Your task to perform on an android device: Clear the cart on ebay.com. Add "logitech g pro" to the cart on ebay.com, then select checkout. Image 0: 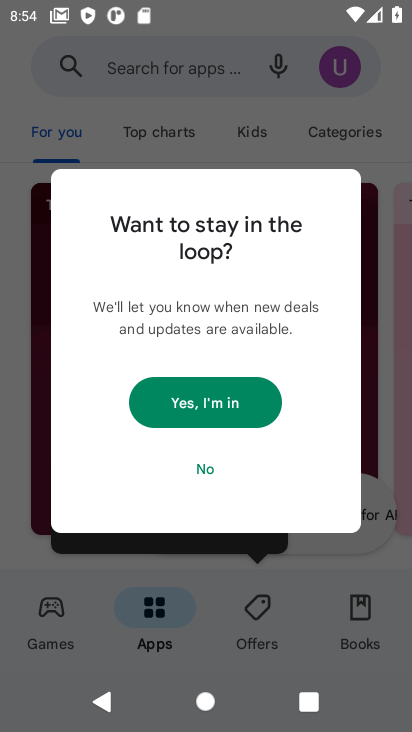
Step 0: press home button
Your task to perform on an android device: Clear the cart on ebay.com. Add "logitech g pro" to the cart on ebay.com, then select checkout. Image 1: 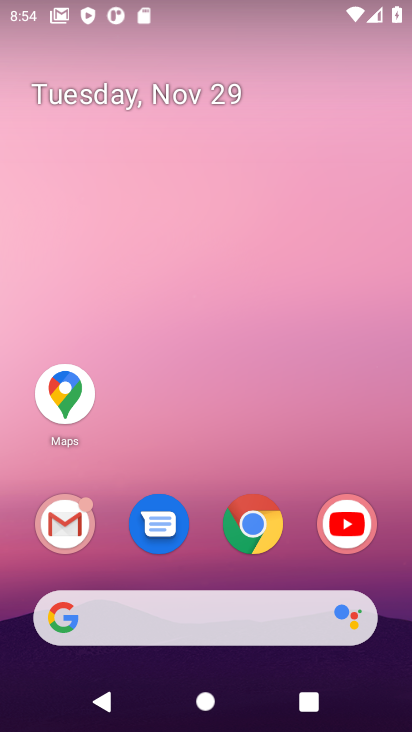
Step 1: click (251, 522)
Your task to perform on an android device: Clear the cart on ebay.com. Add "logitech g pro" to the cart on ebay.com, then select checkout. Image 2: 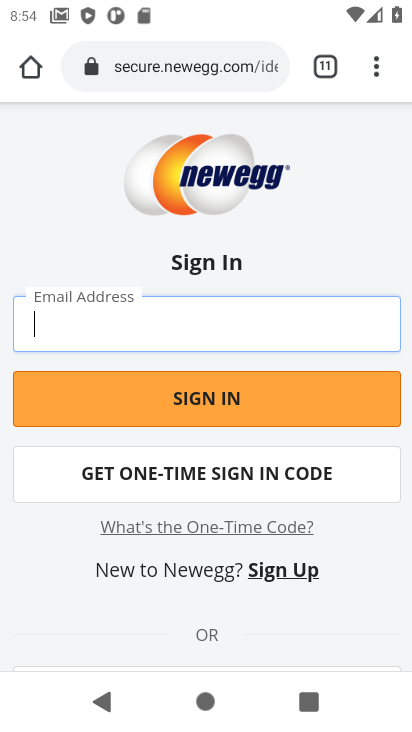
Step 2: click (167, 61)
Your task to perform on an android device: Clear the cart on ebay.com. Add "logitech g pro" to the cart on ebay.com, then select checkout. Image 3: 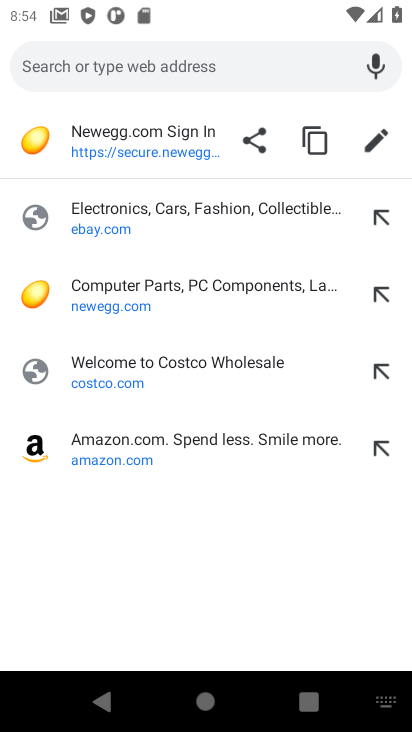
Step 3: click (96, 224)
Your task to perform on an android device: Clear the cart on ebay.com. Add "logitech g pro" to the cart on ebay.com, then select checkout. Image 4: 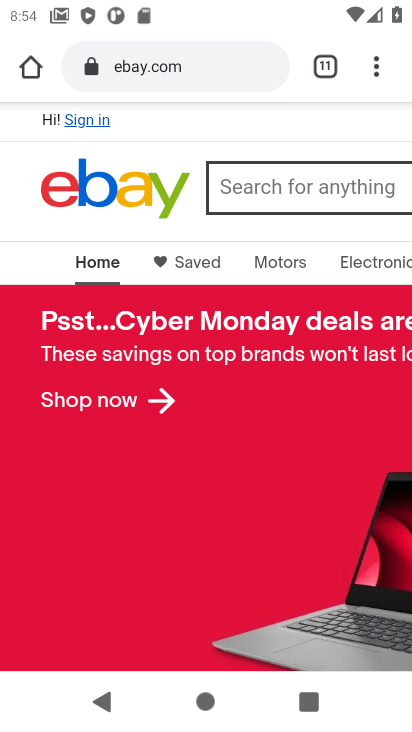
Step 4: drag from (284, 150) to (4, 183)
Your task to perform on an android device: Clear the cart on ebay.com. Add "logitech g pro" to the cart on ebay.com, then select checkout. Image 5: 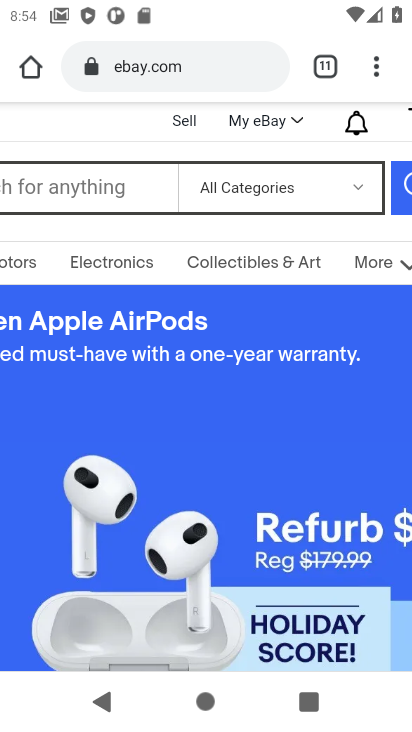
Step 5: drag from (275, 149) to (35, 156)
Your task to perform on an android device: Clear the cart on ebay.com. Add "logitech g pro" to the cart on ebay.com, then select checkout. Image 6: 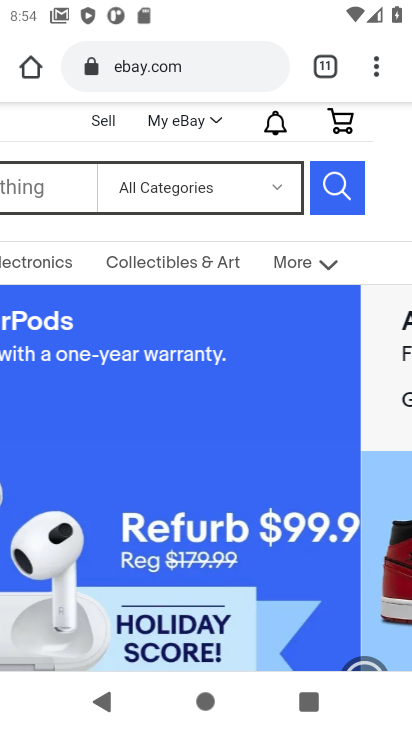
Step 6: click (341, 121)
Your task to perform on an android device: Clear the cart on ebay.com. Add "logitech g pro" to the cart on ebay.com, then select checkout. Image 7: 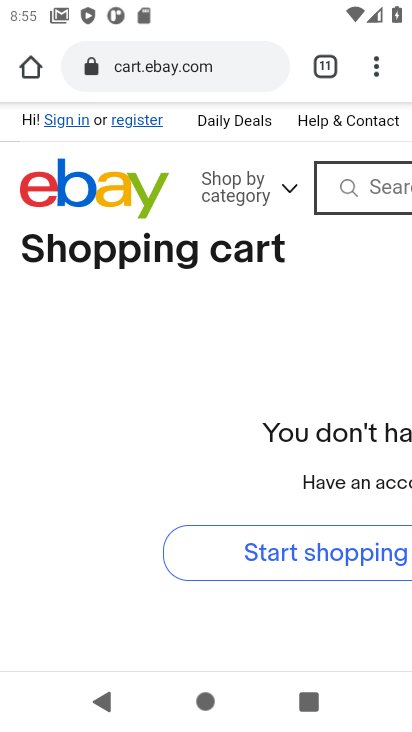
Step 7: drag from (300, 399) to (117, 394)
Your task to perform on an android device: Clear the cart on ebay.com. Add "logitech g pro" to the cart on ebay.com, then select checkout. Image 8: 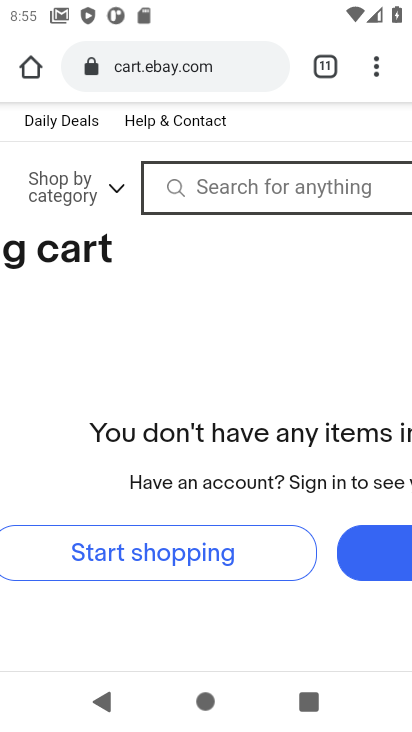
Step 8: click (219, 191)
Your task to perform on an android device: Clear the cart on ebay.com. Add "logitech g pro" to the cart on ebay.com, then select checkout. Image 9: 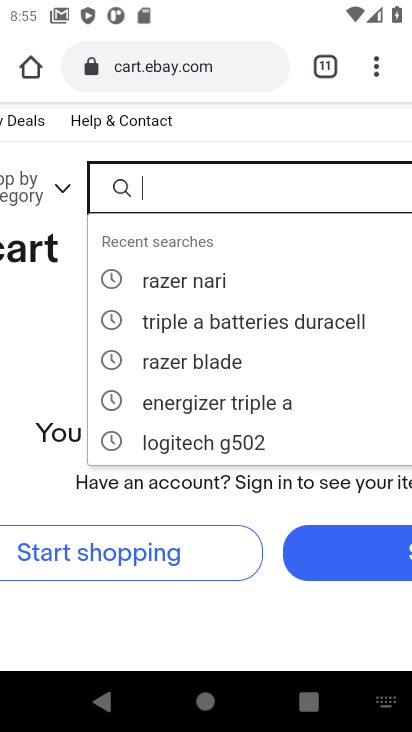
Step 9: type "logitech g pro"
Your task to perform on an android device: Clear the cart on ebay.com. Add "logitech g pro" to the cart on ebay.com, then select checkout. Image 10: 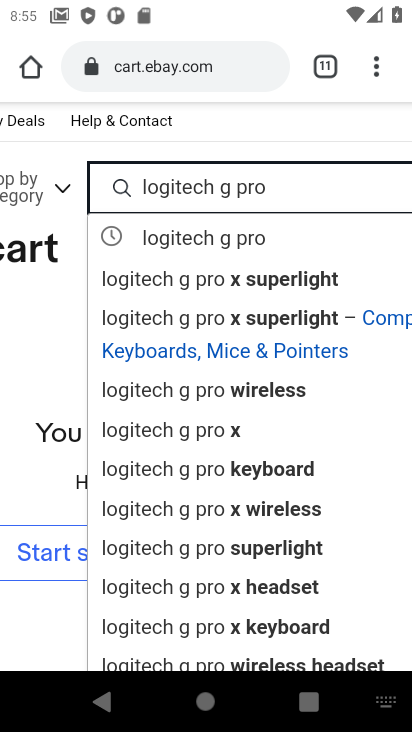
Step 10: click (213, 240)
Your task to perform on an android device: Clear the cart on ebay.com. Add "logitech g pro" to the cart on ebay.com, then select checkout. Image 11: 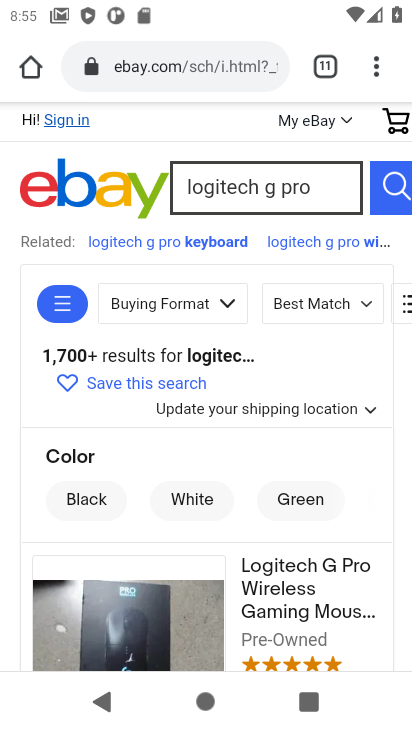
Step 11: drag from (209, 542) to (186, 267)
Your task to perform on an android device: Clear the cart on ebay.com. Add "logitech g pro" to the cart on ebay.com, then select checkout. Image 12: 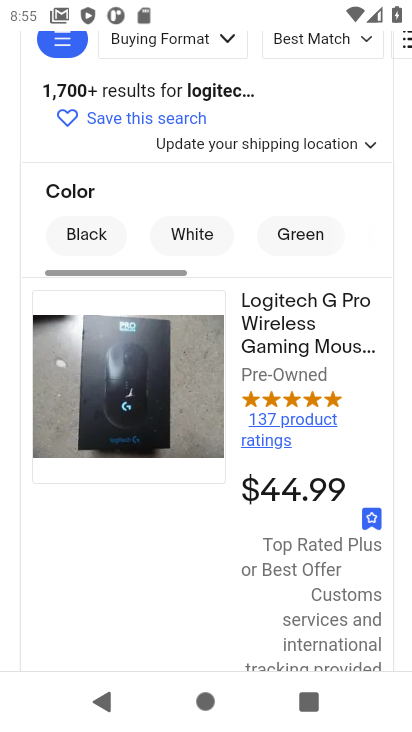
Step 12: click (289, 350)
Your task to perform on an android device: Clear the cart on ebay.com. Add "logitech g pro" to the cart on ebay.com, then select checkout. Image 13: 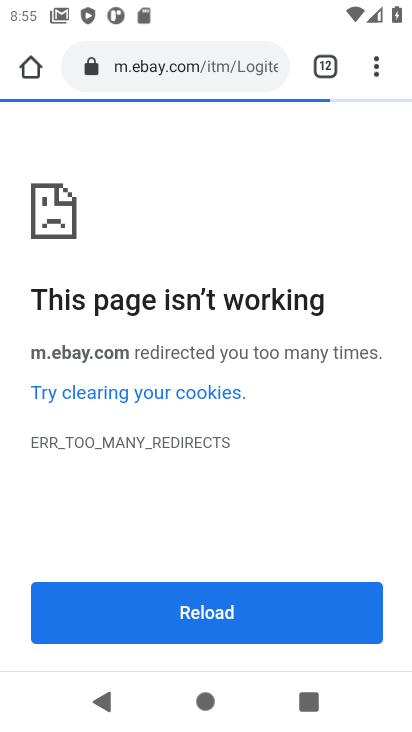
Step 13: task complete